Your task to perform on an android device: create a new album in the google photos Image 0: 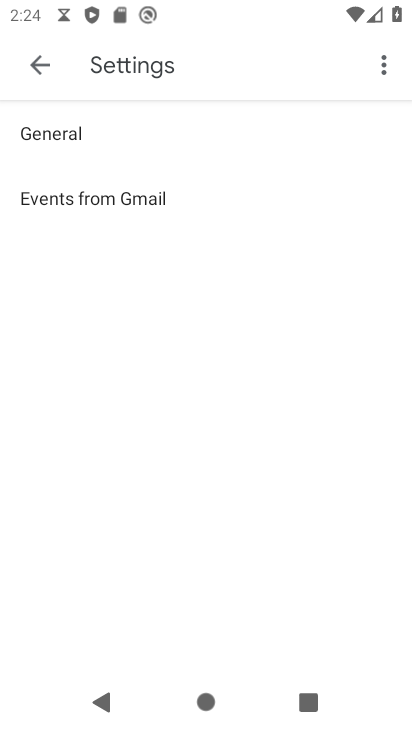
Step 0: press back button
Your task to perform on an android device: create a new album in the google photos Image 1: 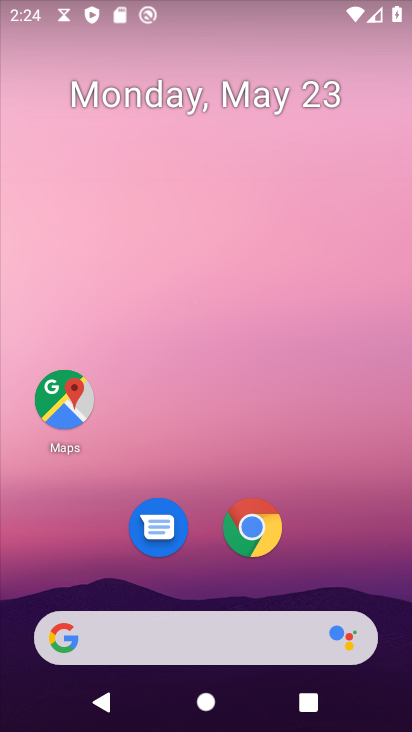
Step 1: drag from (337, 528) to (223, 38)
Your task to perform on an android device: create a new album in the google photos Image 2: 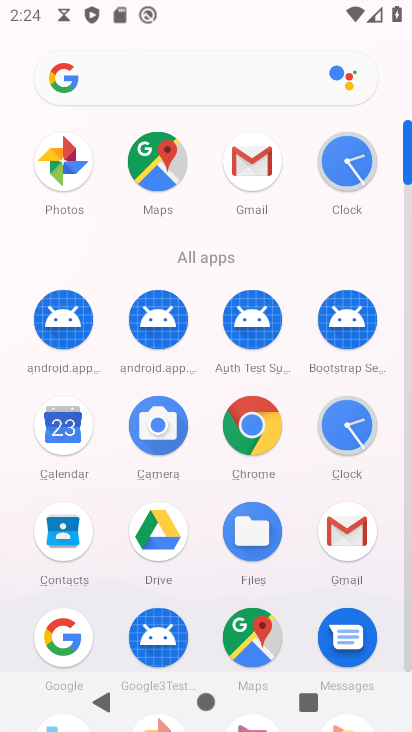
Step 2: drag from (22, 602) to (19, 242)
Your task to perform on an android device: create a new album in the google photos Image 3: 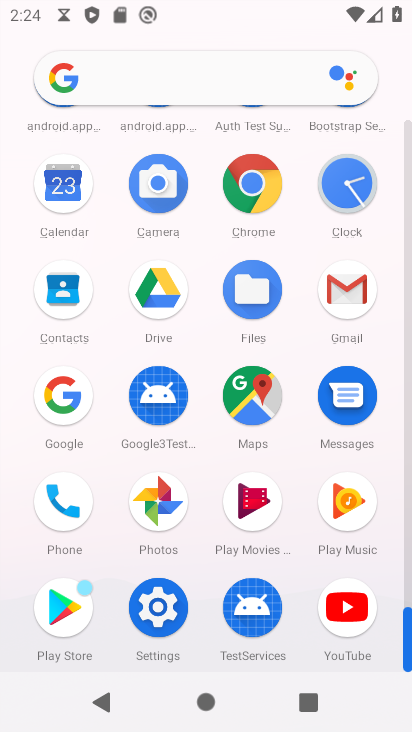
Step 3: click (152, 502)
Your task to perform on an android device: create a new album in the google photos Image 4: 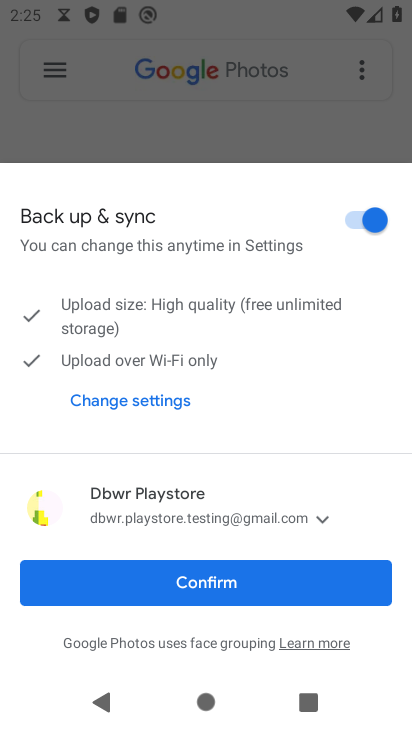
Step 4: click (173, 574)
Your task to perform on an android device: create a new album in the google photos Image 5: 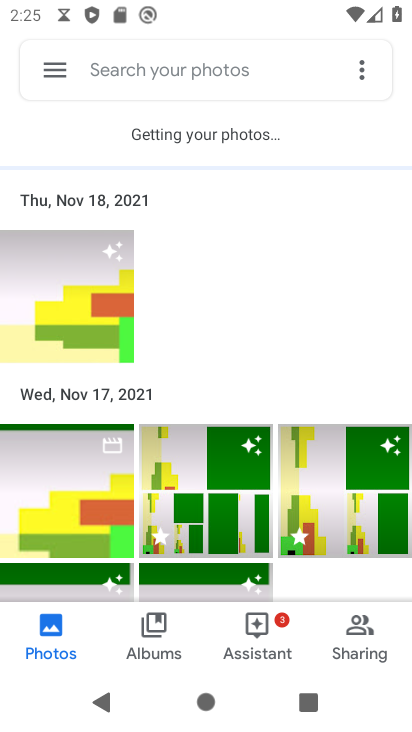
Step 5: click (95, 274)
Your task to perform on an android device: create a new album in the google photos Image 6: 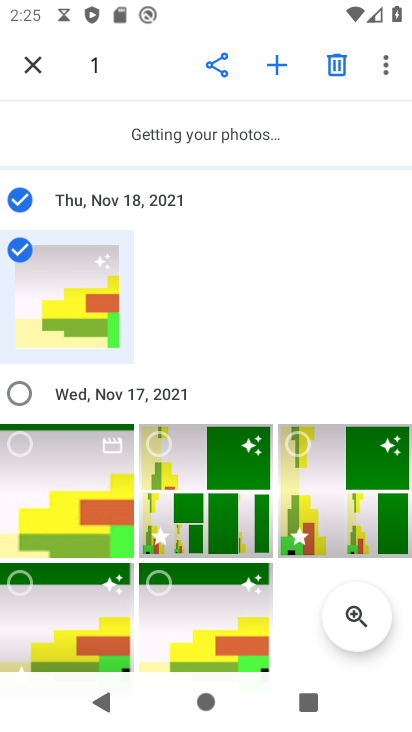
Step 6: click (275, 57)
Your task to perform on an android device: create a new album in the google photos Image 7: 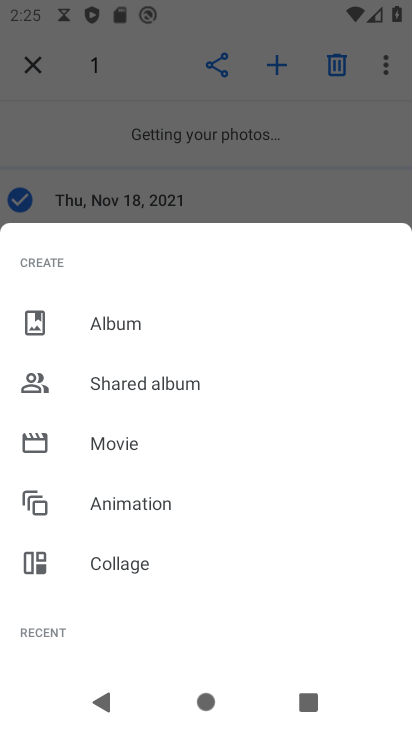
Step 7: click (164, 327)
Your task to perform on an android device: create a new album in the google photos Image 8: 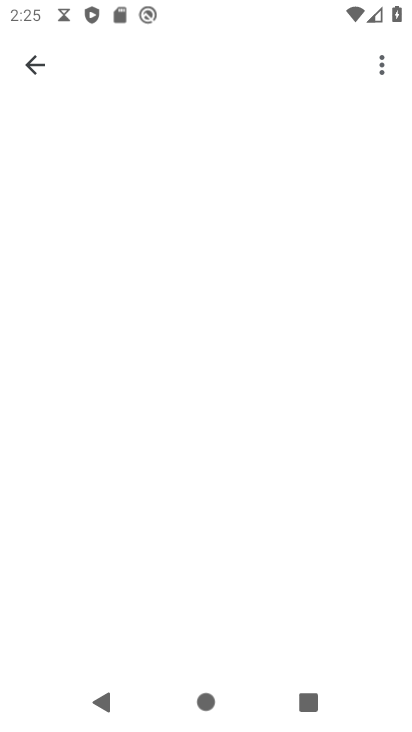
Step 8: click (164, 324)
Your task to perform on an android device: create a new album in the google photos Image 9: 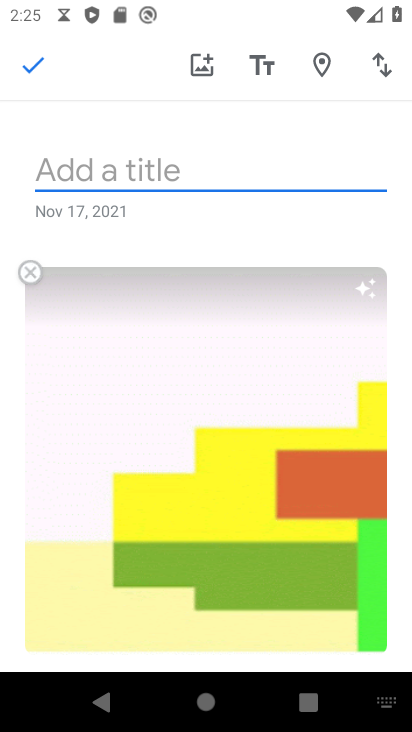
Step 9: type "Asdfg"
Your task to perform on an android device: create a new album in the google photos Image 10: 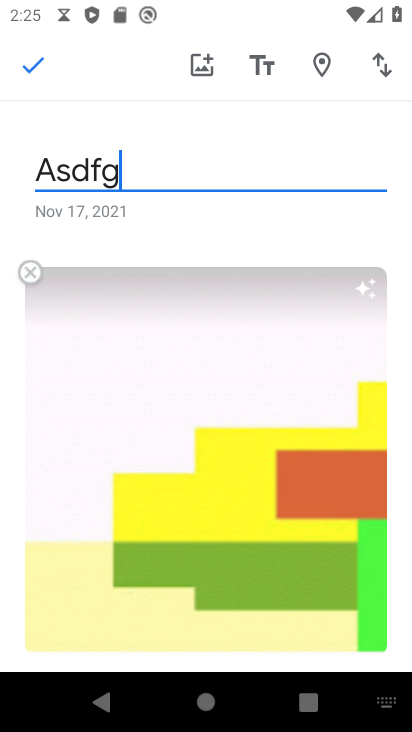
Step 10: type ""
Your task to perform on an android device: create a new album in the google photos Image 11: 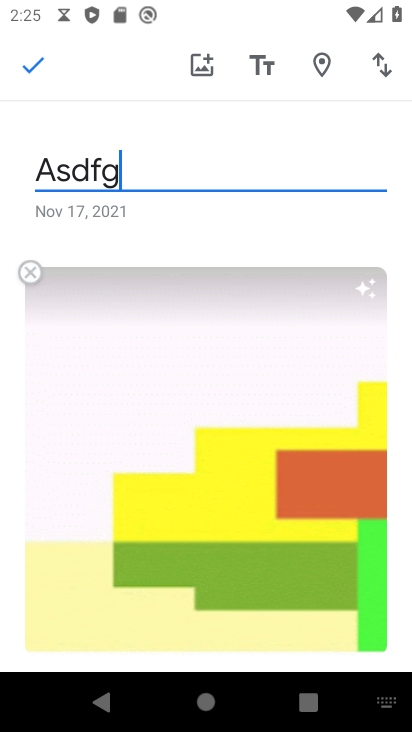
Step 11: click (30, 63)
Your task to perform on an android device: create a new album in the google photos Image 12: 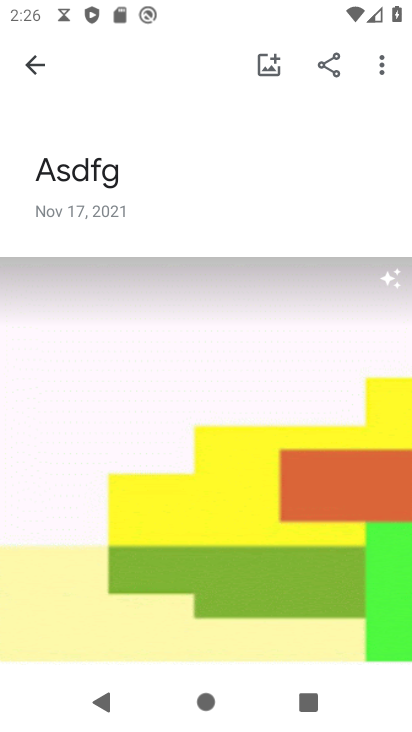
Step 12: task complete